Your task to perform on an android device: turn off javascript in the chrome app Image 0: 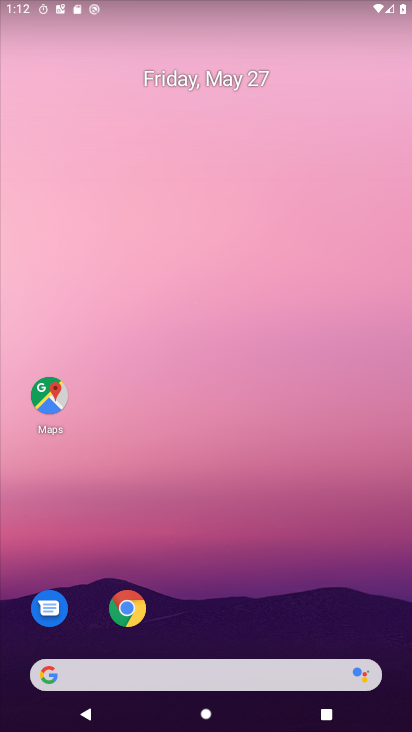
Step 0: click (138, 611)
Your task to perform on an android device: turn off javascript in the chrome app Image 1: 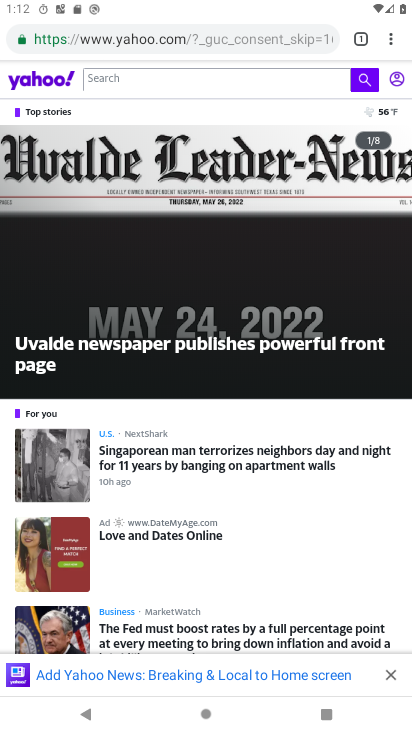
Step 1: click (389, 39)
Your task to perform on an android device: turn off javascript in the chrome app Image 2: 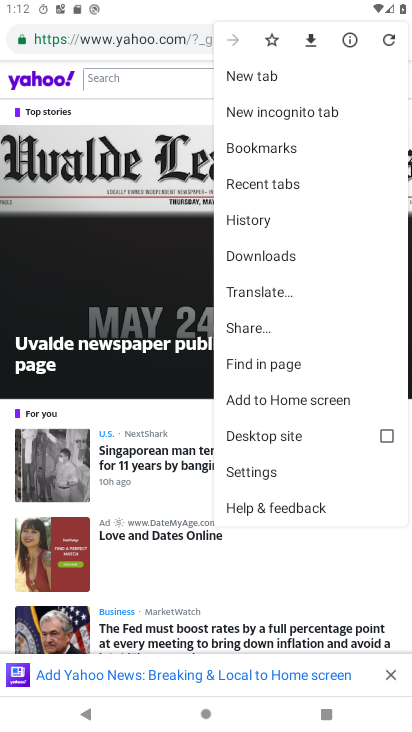
Step 2: click (244, 478)
Your task to perform on an android device: turn off javascript in the chrome app Image 3: 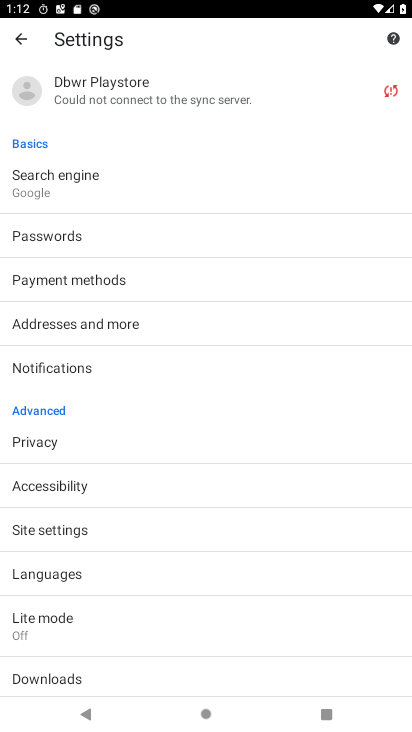
Step 3: click (34, 534)
Your task to perform on an android device: turn off javascript in the chrome app Image 4: 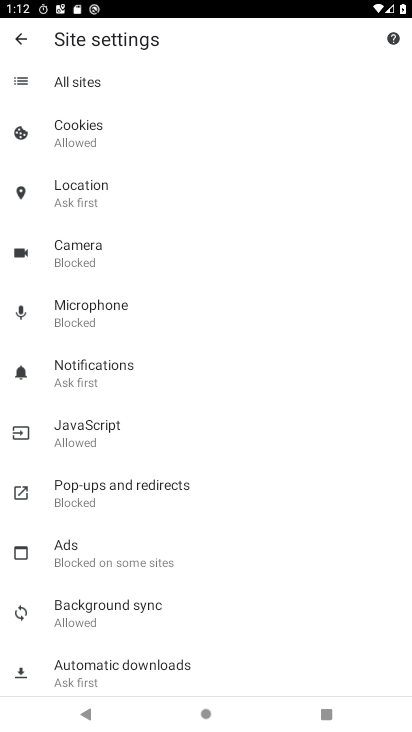
Step 4: click (87, 427)
Your task to perform on an android device: turn off javascript in the chrome app Image 5: 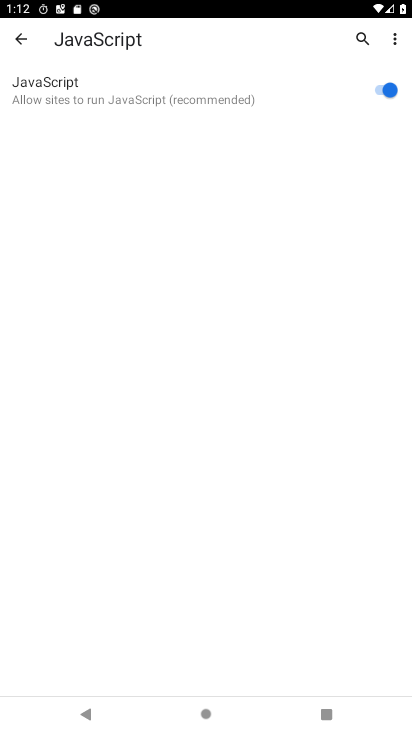
Step 5: click (377, 91)
Your task to perform on an android device: turn off javascript in the chrome app Image 6: 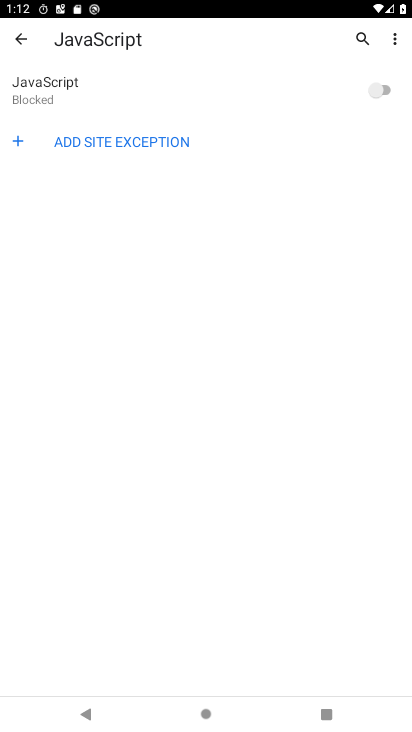
Step 6: task complete